Your task to perform on an android device: Turn on the flashlight Image 0: 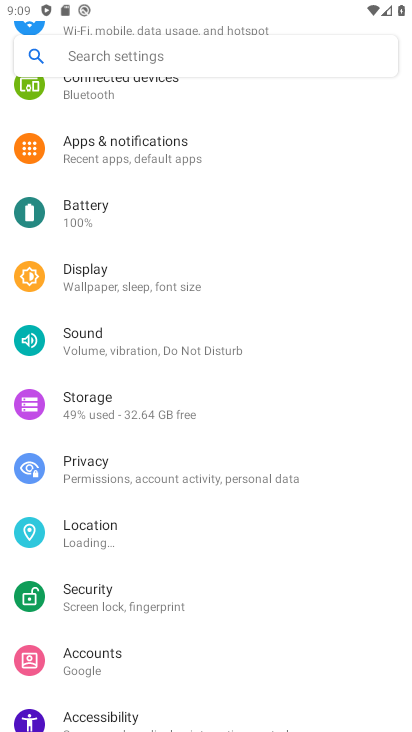
Step 0: press home button
Your task to perform on an android device: Turn on the flashlight Image 1: 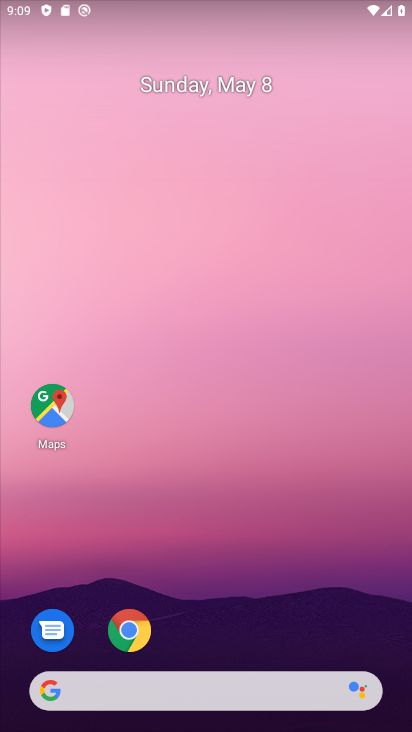
Step 1: task complete